Your task to perform on an android device: turn off wifi Image 0: 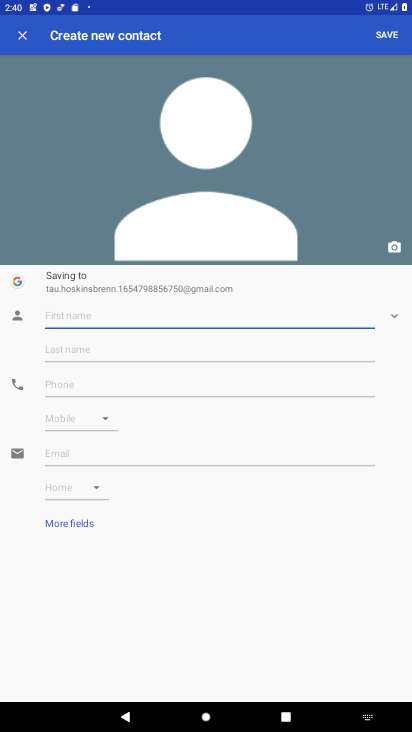
Step 0: press home button
Your task to perform on an android device: turn off wifi Image 1: 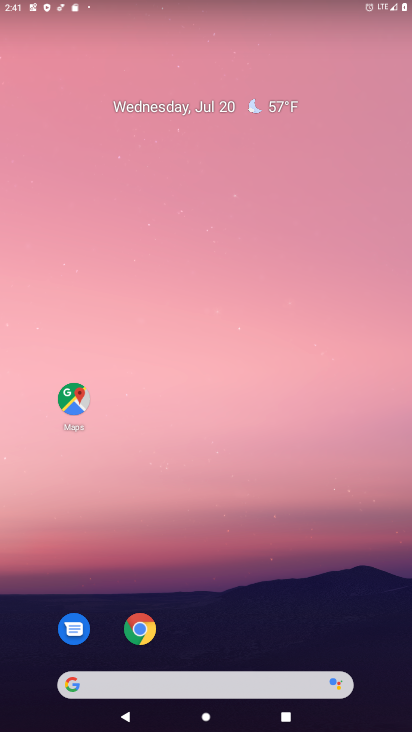
Step 1: drag from (384, 660) to (318, 74)
Your task to perform on an android device: turn off wifi Image 2: 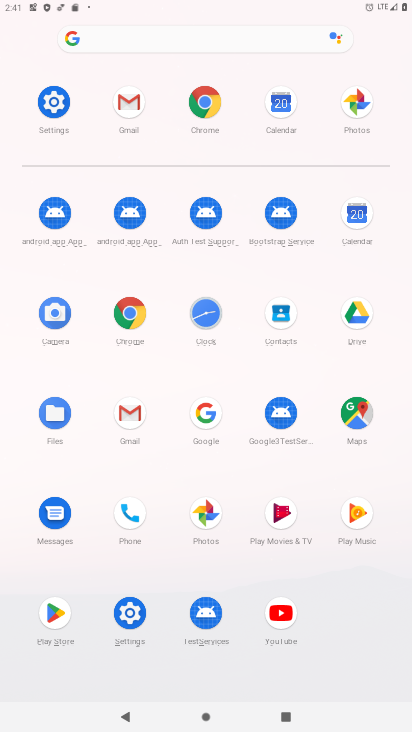
Step 2: click (129, 614)
Your task to perform on an android device: turn off wifi Image 3: 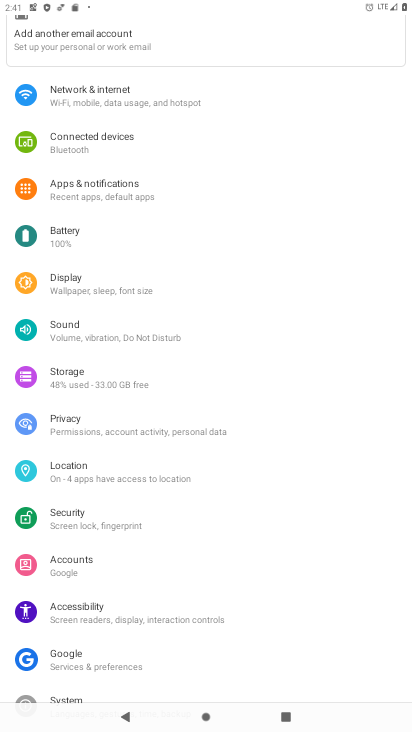
Step 3: click (66, 89)
Your task to perform on an android device: turn off wifi Image 4: 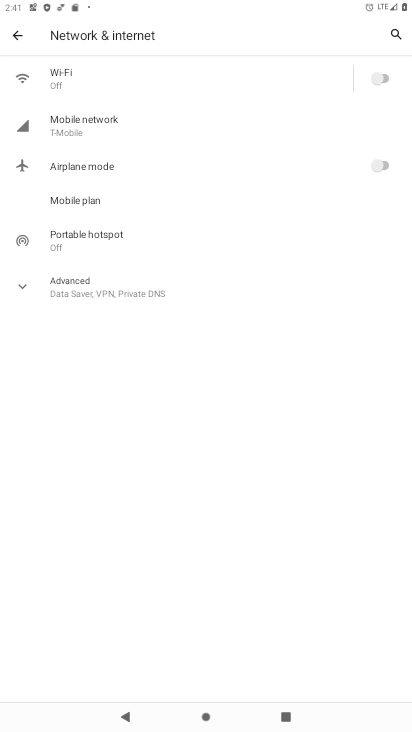
Step 4: task complete